Your task to perform on an android device: Add panasonic triple a to the cart on walmart.com, then select checkout. Image 0: 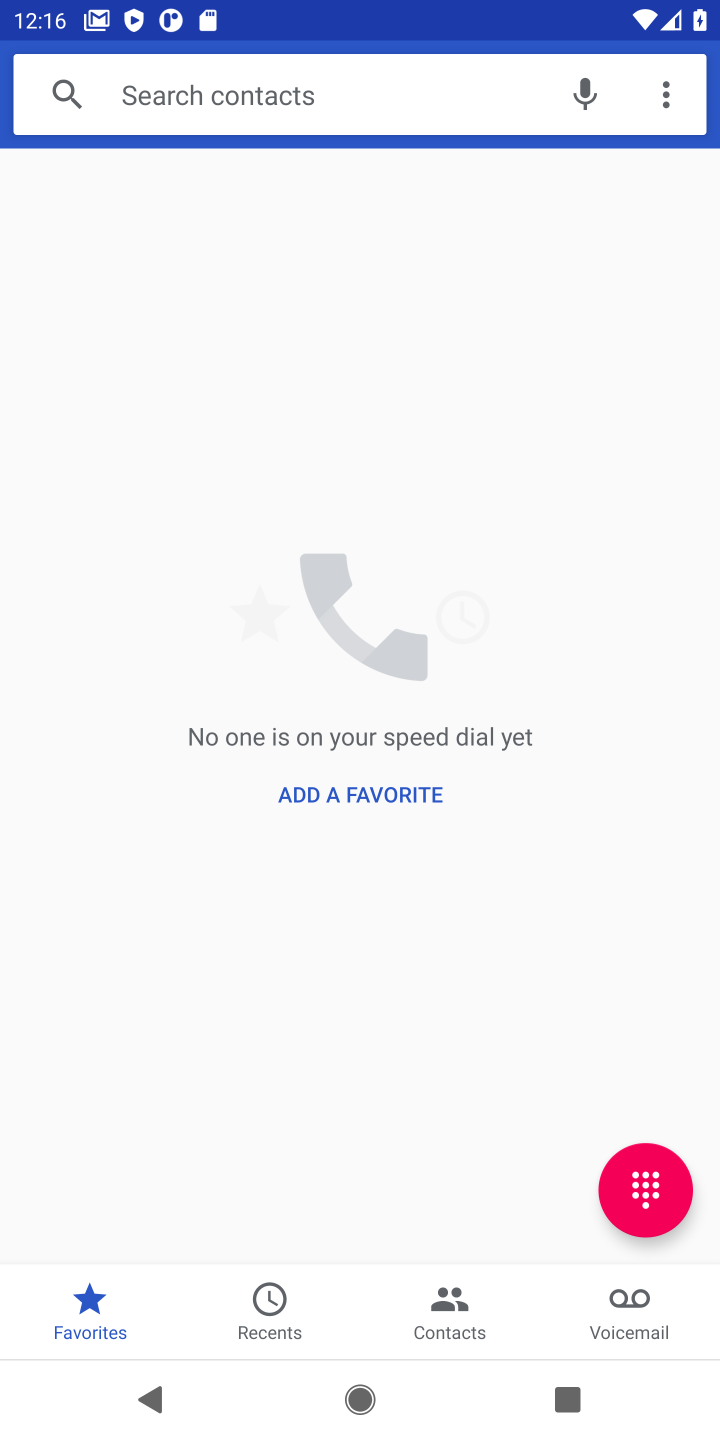
Step 0: press home button
Your task to perform on an android device: Add panasonic triple a to the cart on walmart.com, then select checkout. Image 1: 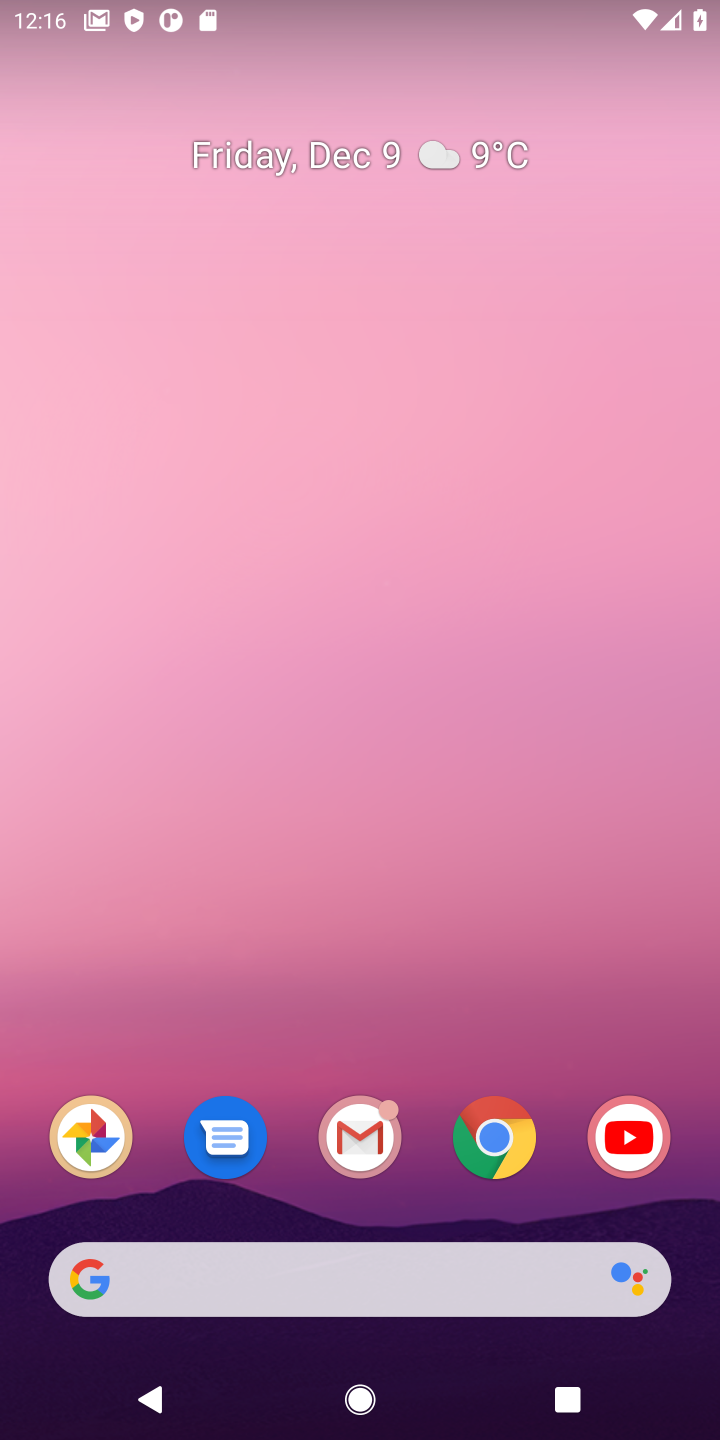
Step 1: click (424, 1260)
Your task to perform on an android device: Add panasonic triple a to the cart on walmart.com, then select checkout. Image 2: 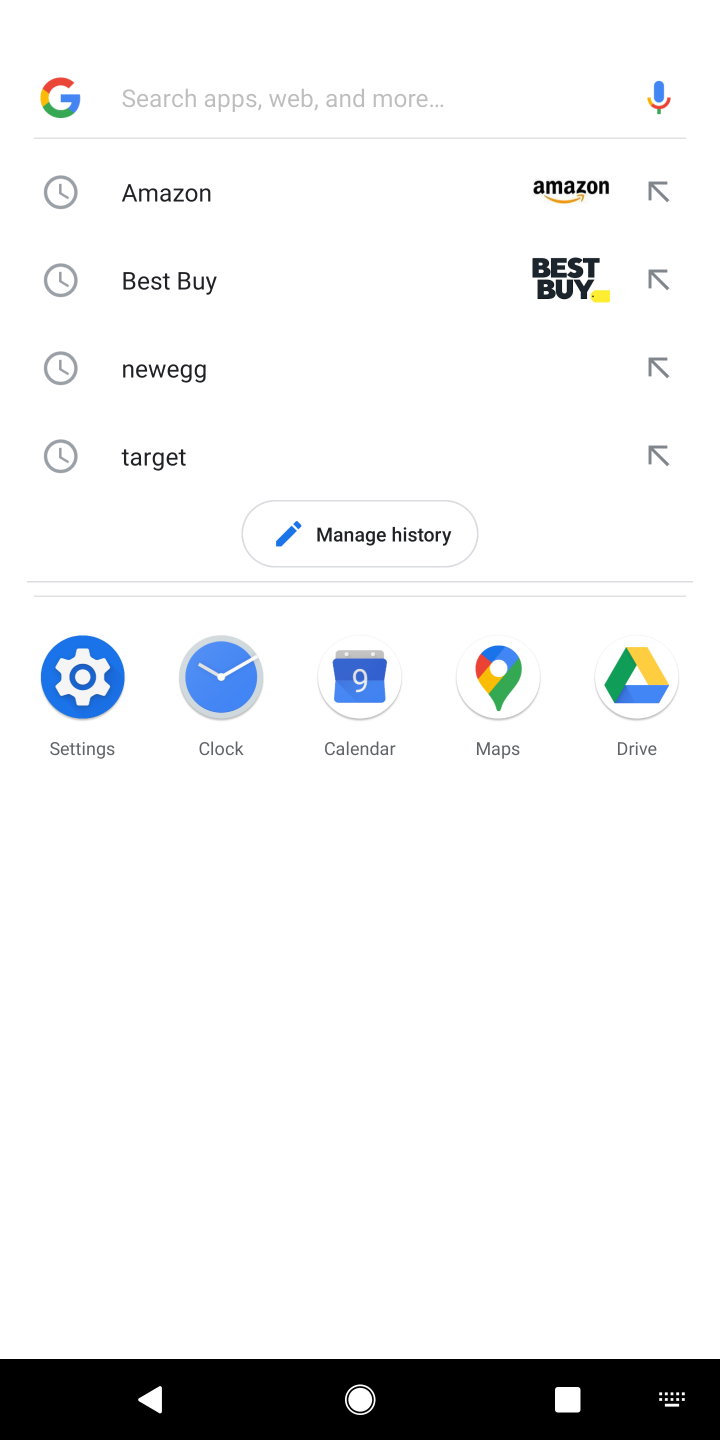
Step 2: type "walmart"
Your task to perform on an android device: Add panasonic triple a to the cart on walmart.com, then select checkout. Image 3: 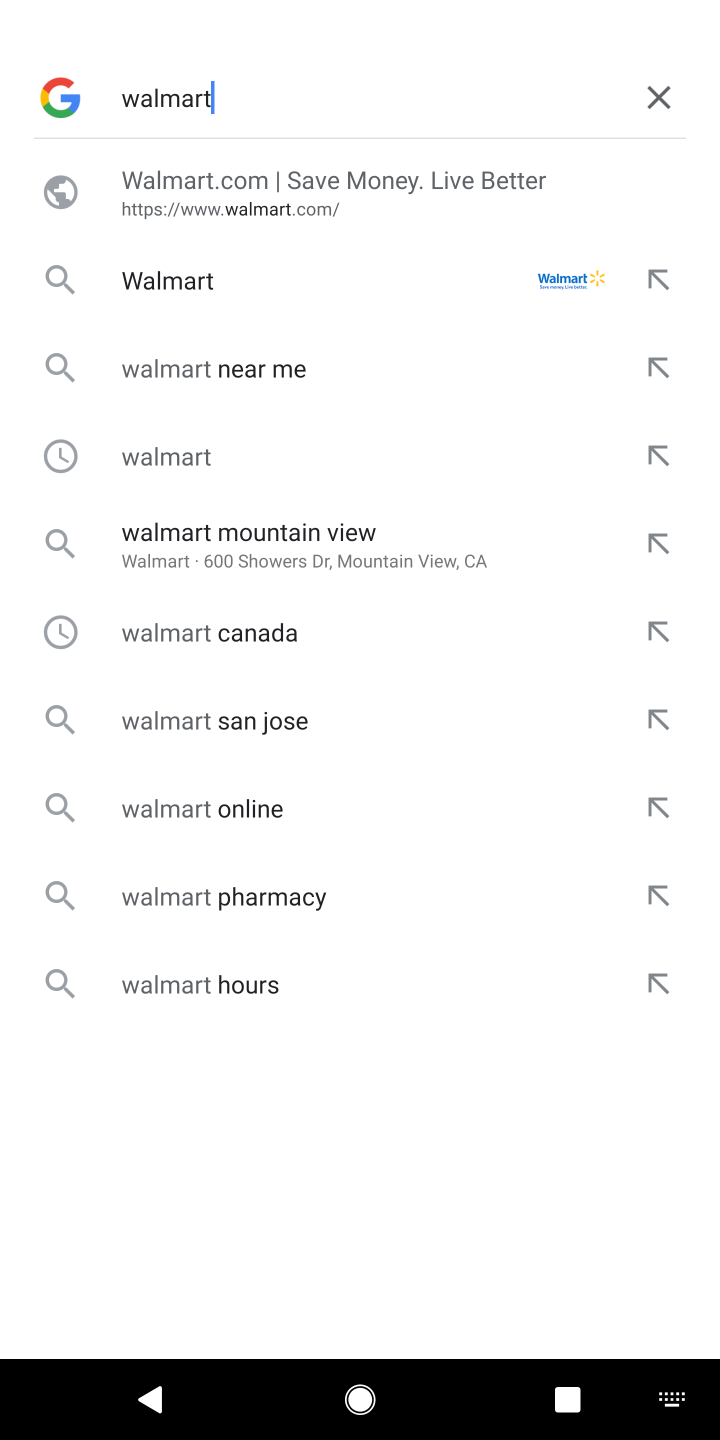
Step 3: click (366, 206)
Your task to perform on an android device: Add panasonic triple a to the cart on walmart.com, then select checkout. Image 4: 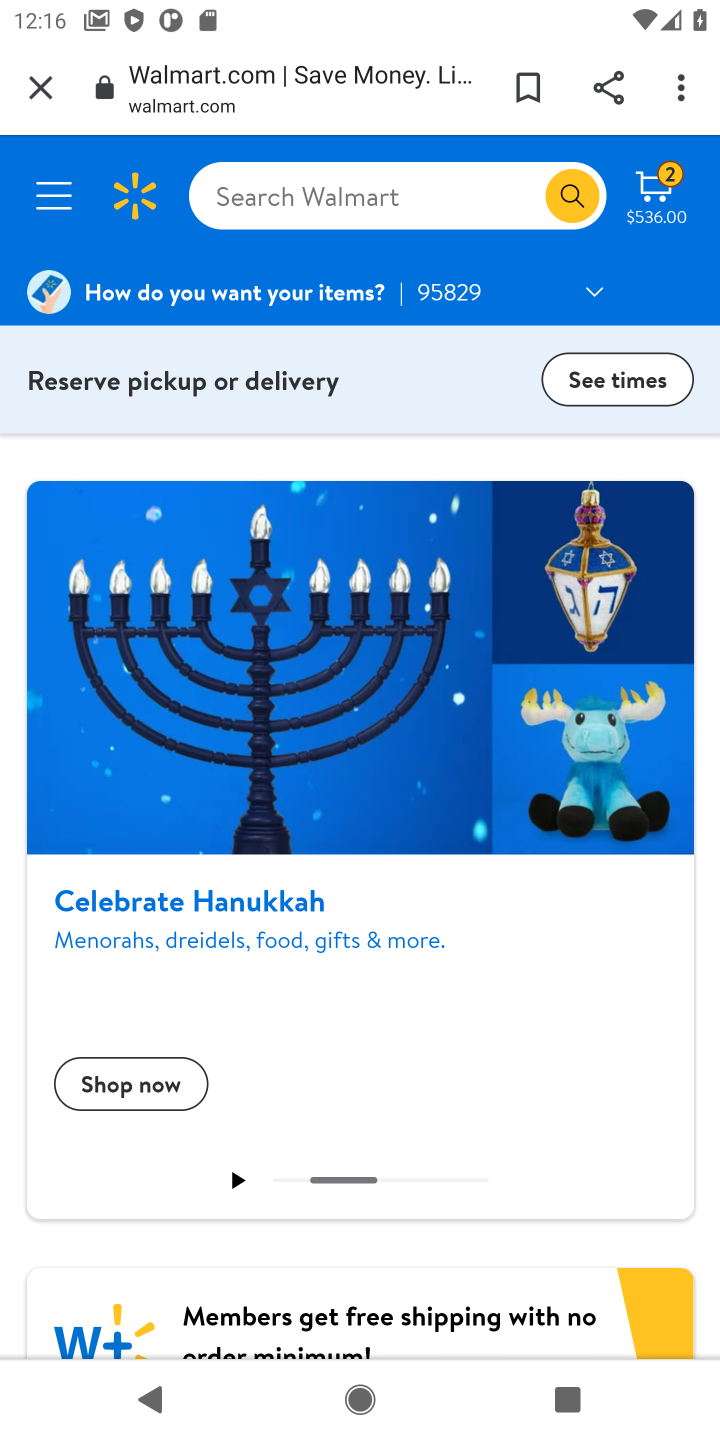
Step 4: click (366, 206)
Your task to perform on an android device: Add panasonic triple a to the cart on walmart.com, then select checkout. Image 5: 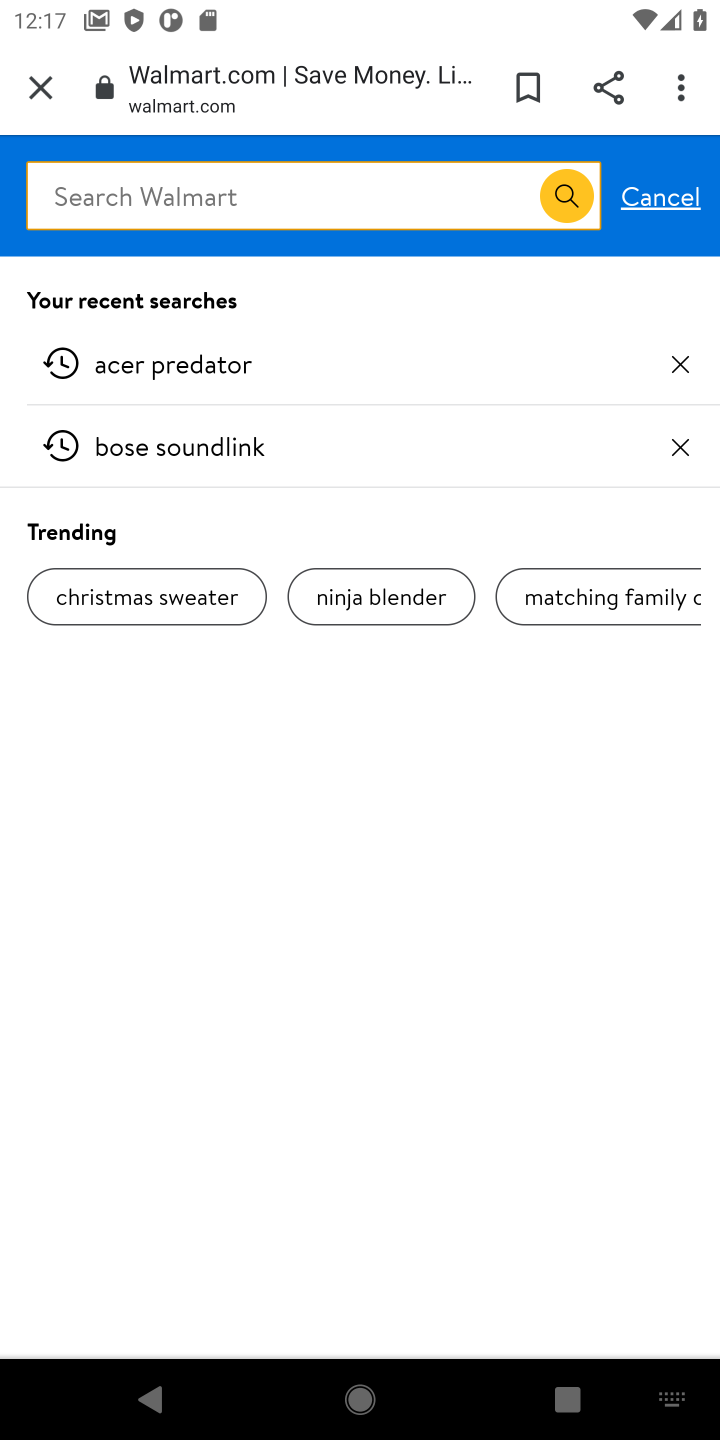
Step 5: type "panasonic triple a"
Your task to perform on an android device: Add panasonic triple a to the cart on walmart.com, then select checkout. Image 6: 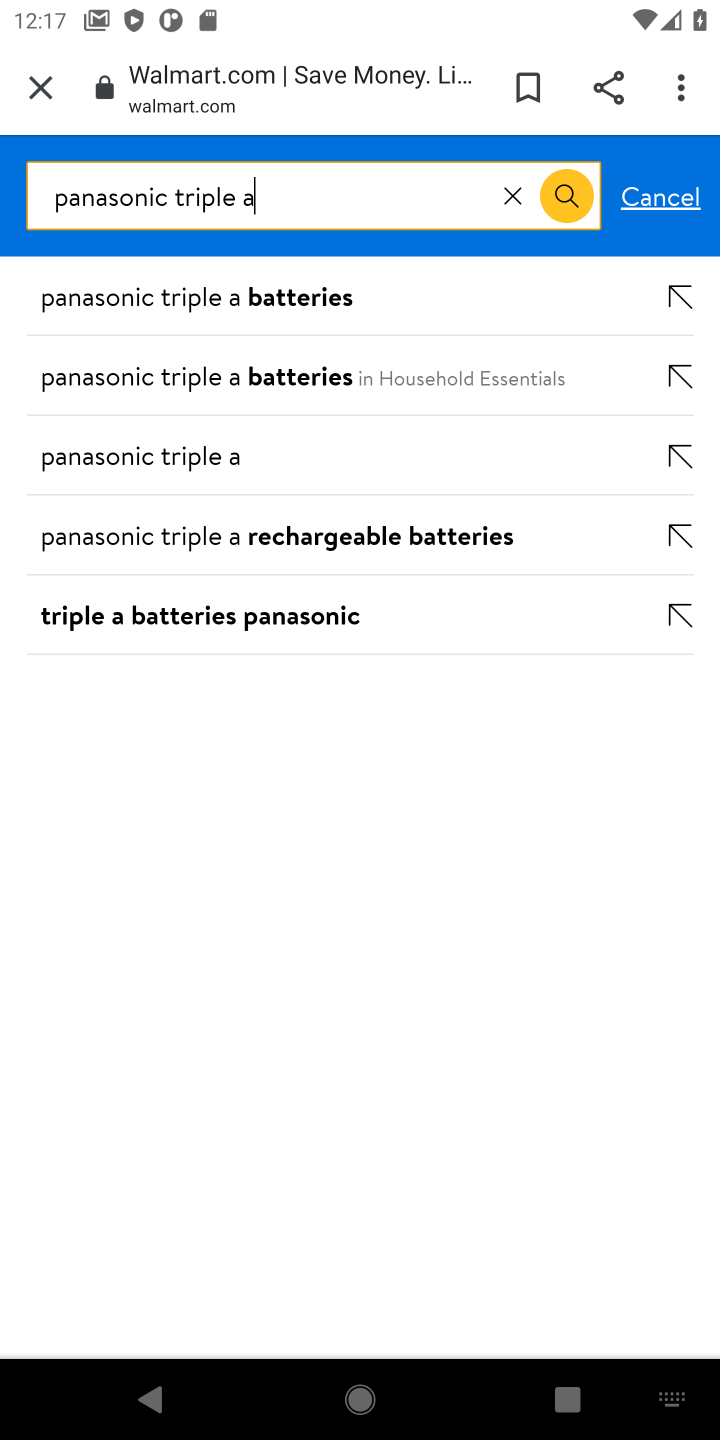
Step 6: click (351, 310)
Your task to perform on an android device: Add panasonic triple a to the cart on walmart.com, then select checkout. Image 7: 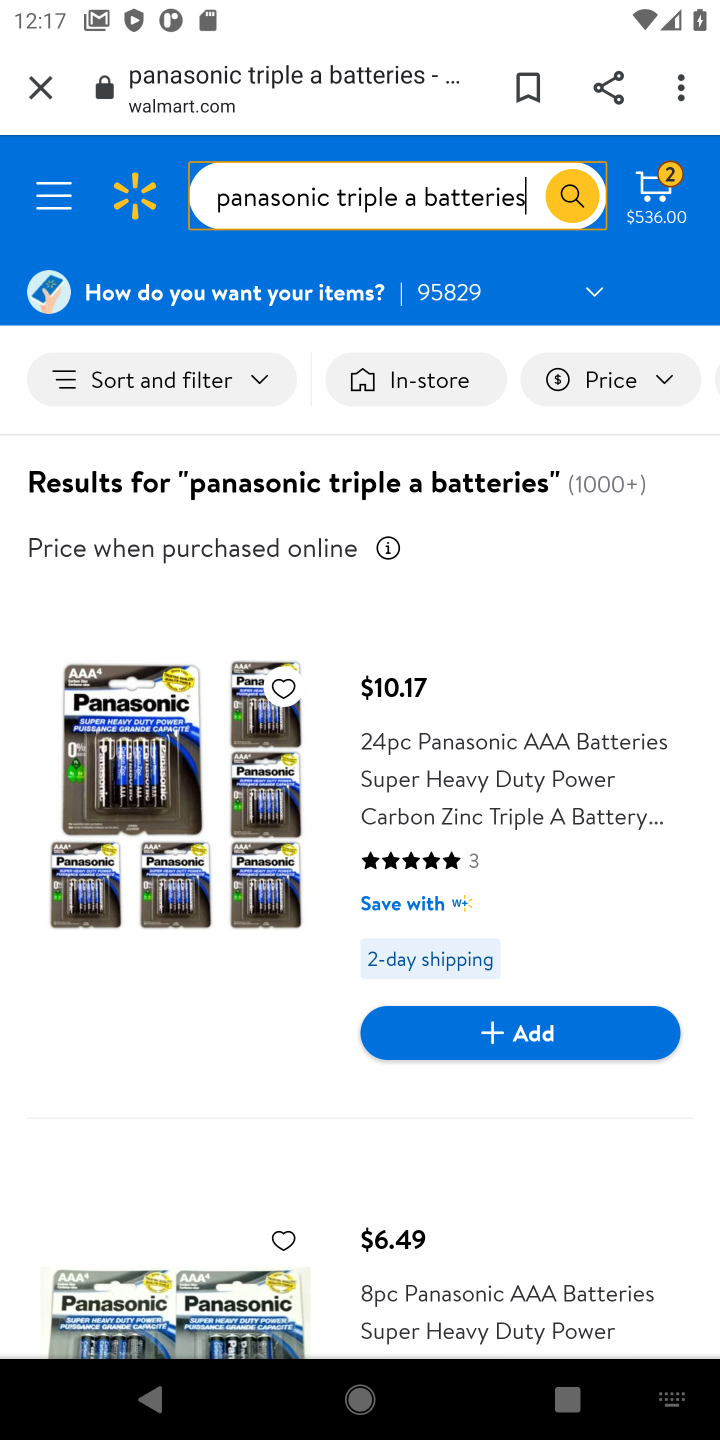
Step 7: click (416, 1051)
Your task to perform on an android device: Add panasonic triple a to the cart on walmart.com, then select checkout. Image 8: 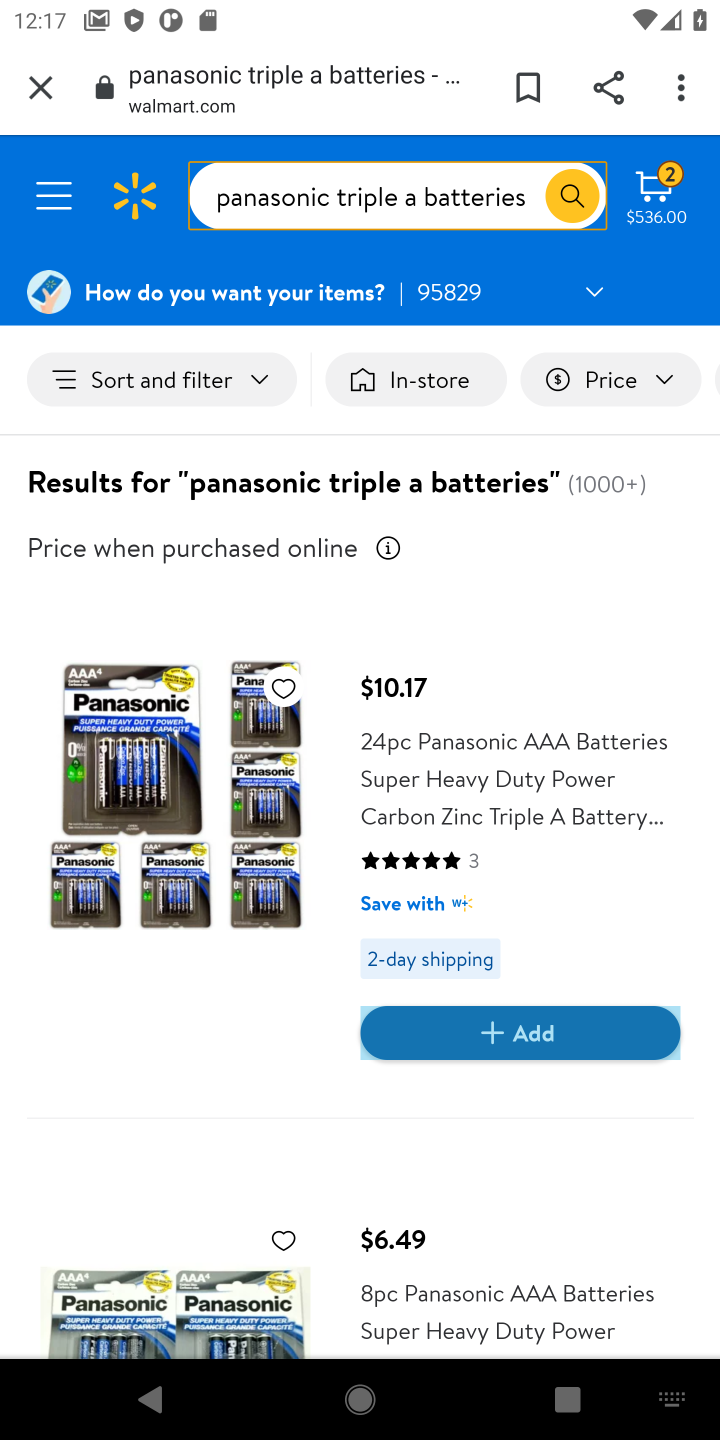
Step 8: task complete